Your task to perform on an android device: Go to display settings Image 0: 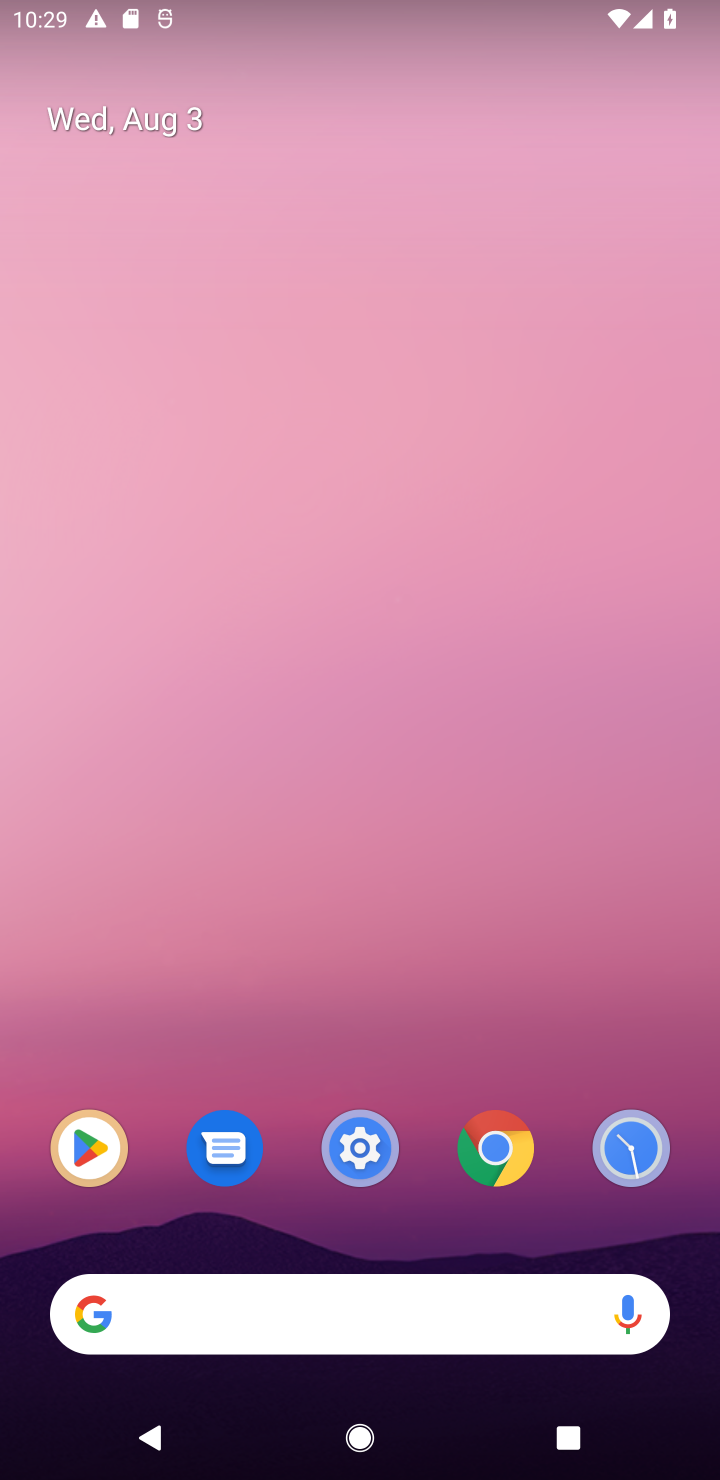
Step 0: drag from (462, 443) to (534, 27)
Your task to perform on an android device: Go to display settings Image 1: 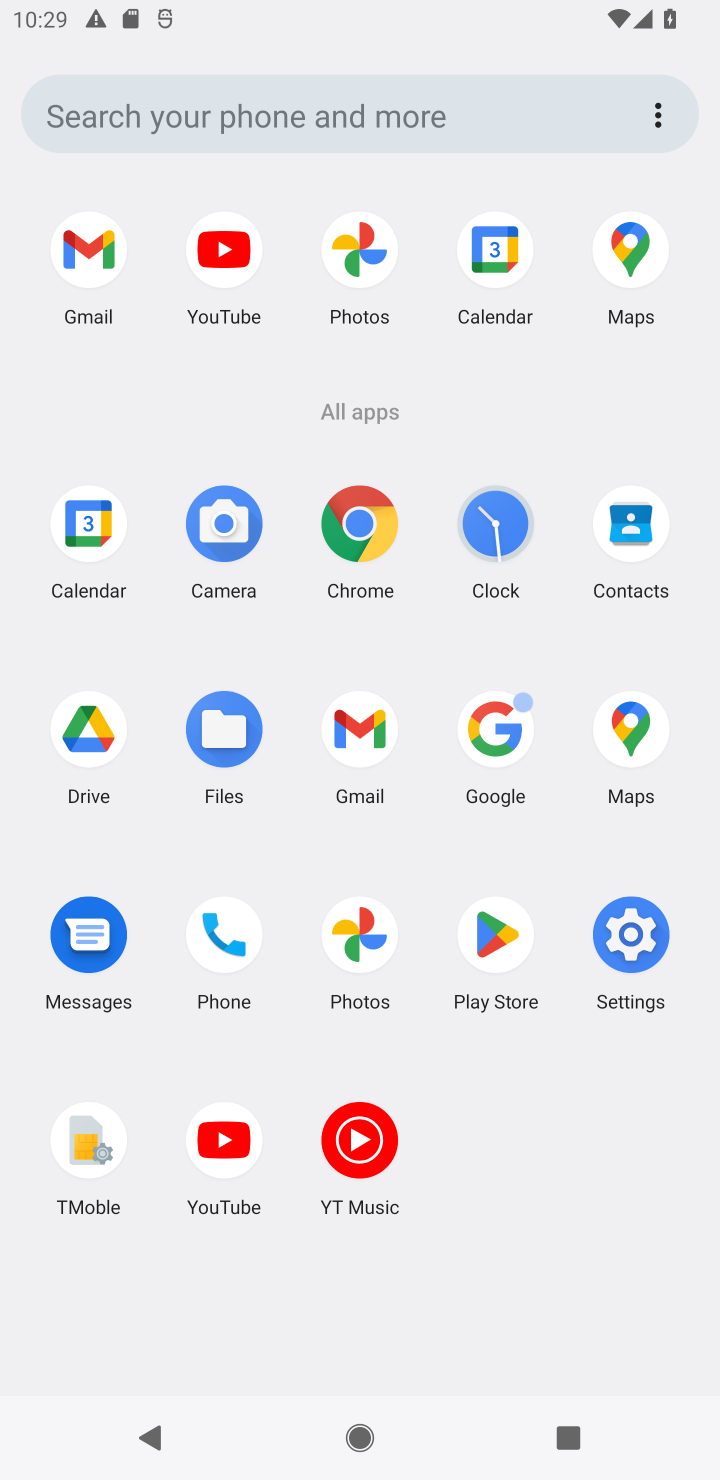
Step 1: click (596, 908)
Your task to perform on an android device: Go to display settings Image 2: 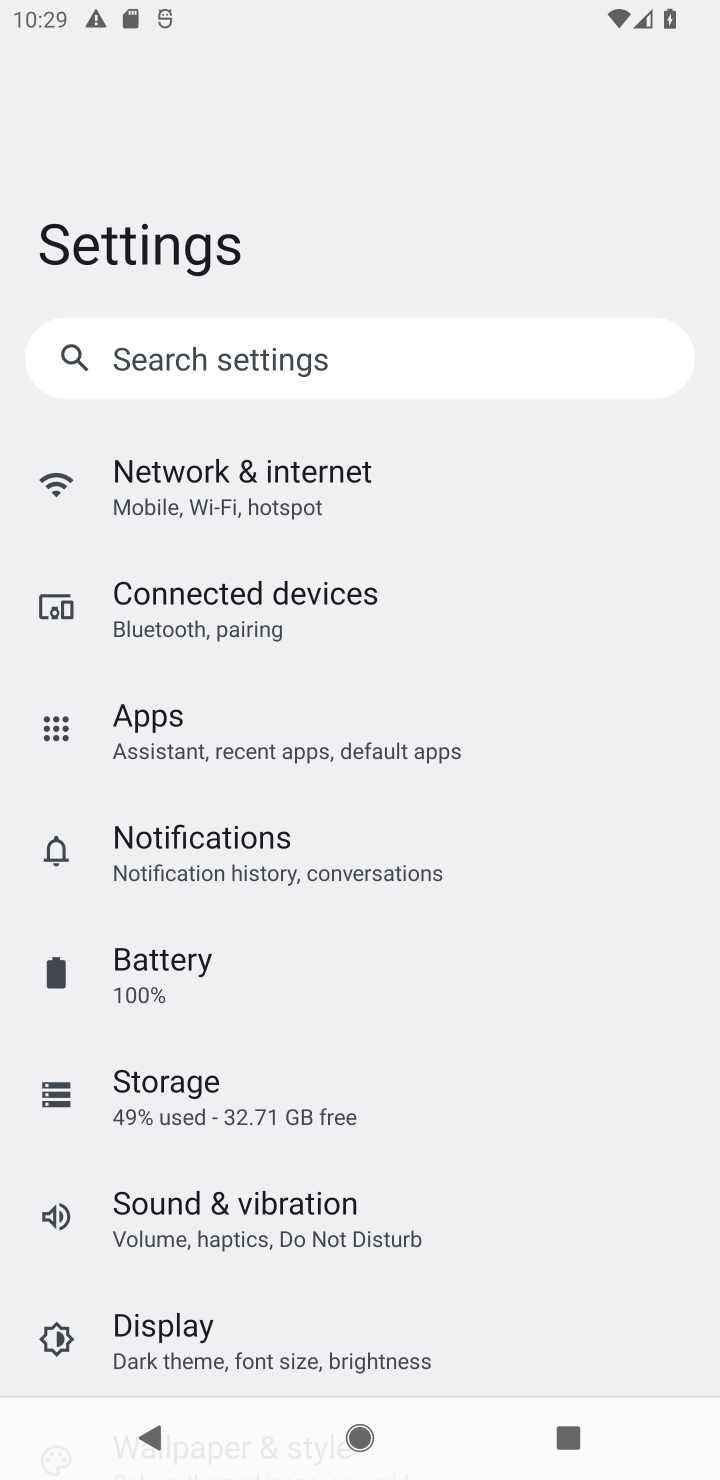
Step 2: click (206, 1340)
Your task to perform on an android device: Go to display settings Image 3: 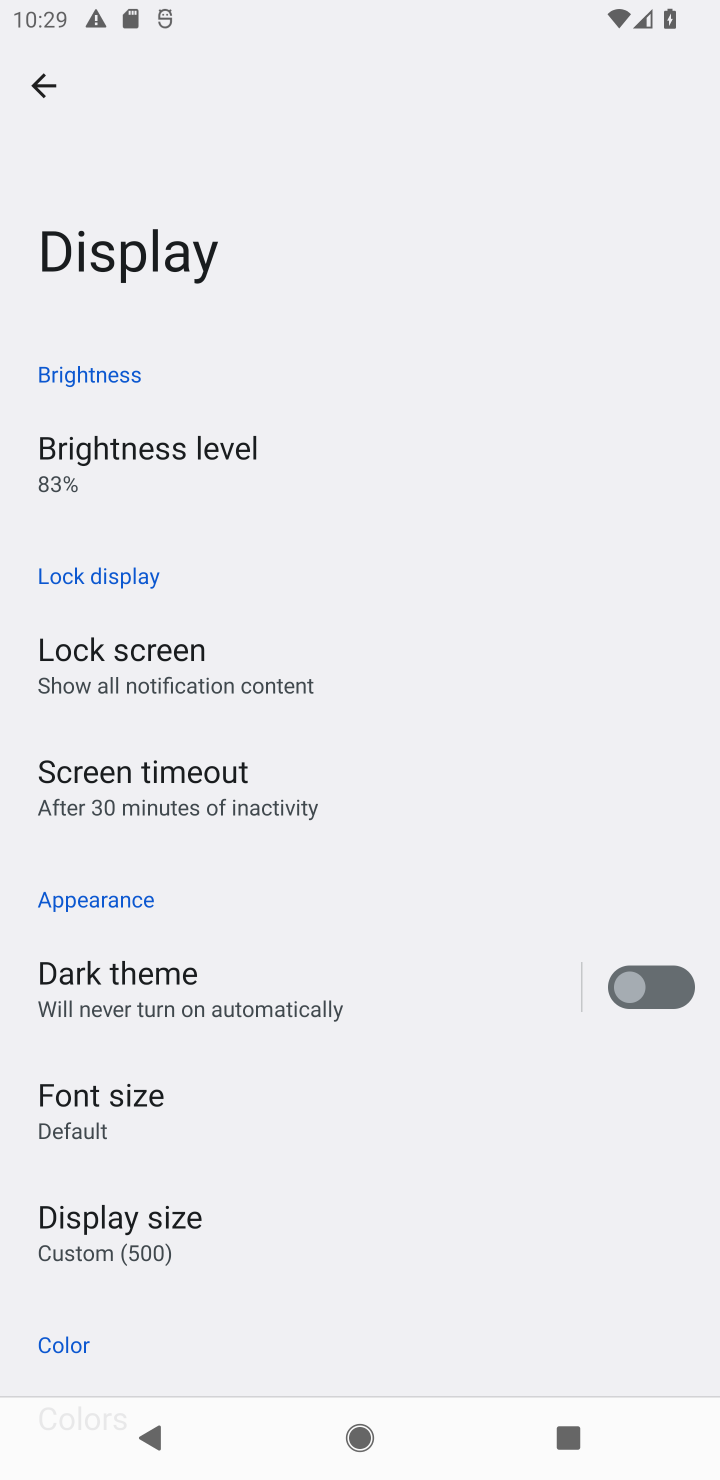
Step 3: task complete